Your task to perform on an android device: toggle show notifications on the lock screen Image 0: 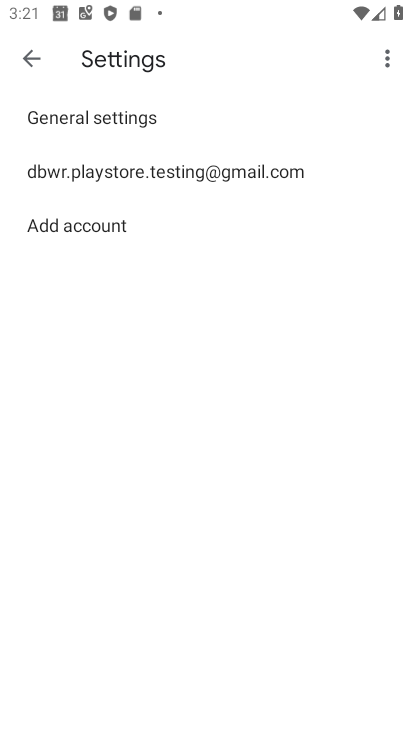
Step 0: press home button
Your task to perform on an android device: toggle show notifications on the lock screen Image 1: 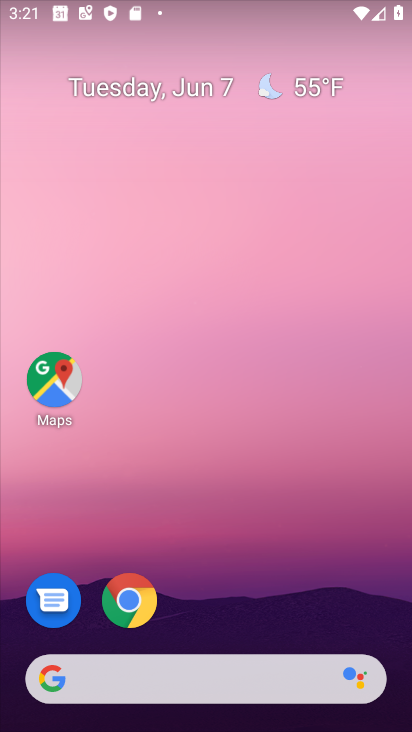
Step 1: drag from (212, 593) to (205, 2)
Your task to perform on an android device: toggle show notifications on the lock screen Image 2: 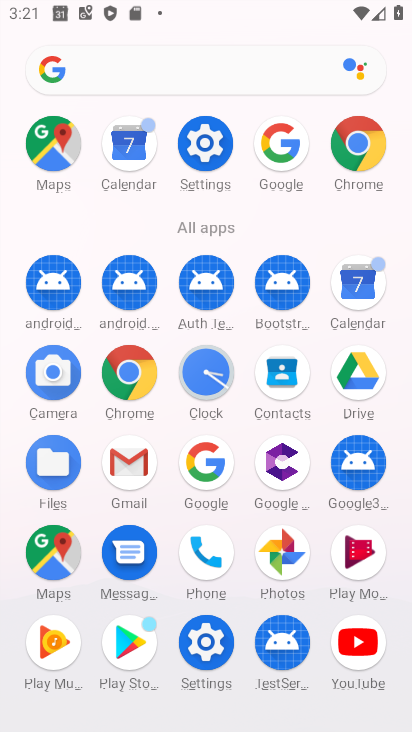
Step 2: click (204, 145)
Your task to perform on an android device: toggle show notifications on the lock screen Image 3: 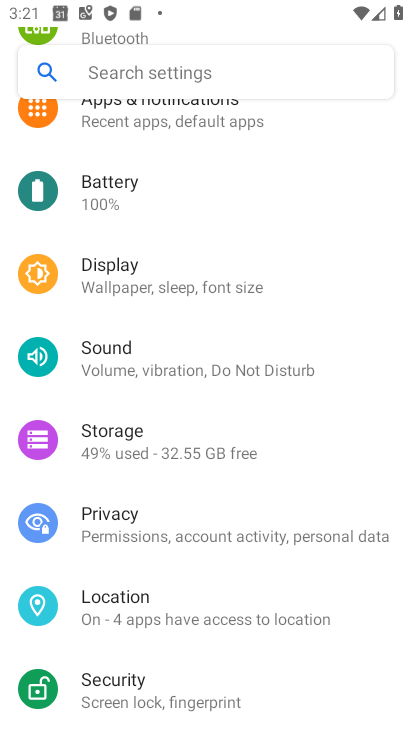
Step 3: click (162, 131)
Your task to perform on an android device: toggle show notifications on the lock screen Image 4: 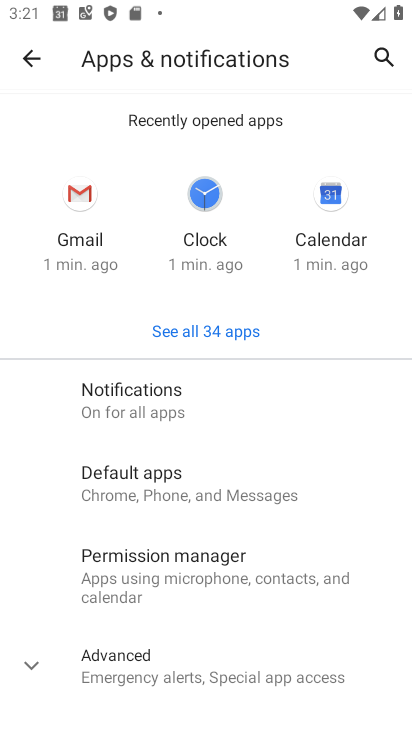
Step 4: click (159, 411)
Your task to perform on an android device: toggle show notifications on the lock screen Image 5: 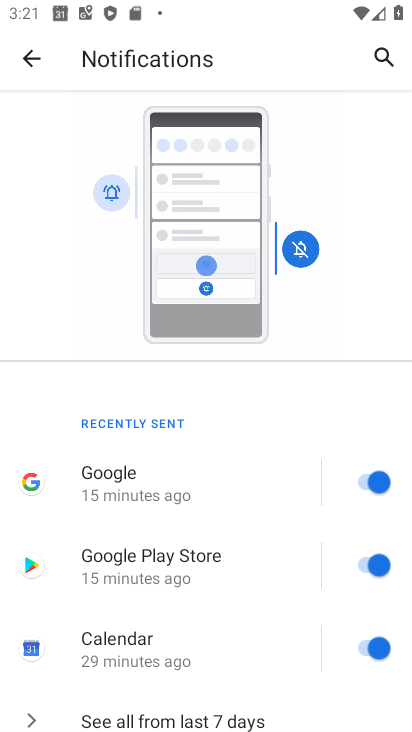
Step 5: drag from (198, 644) to (219, 343)
Your task to perform on an android device: toggle show notifications on the lock screen Image 6: 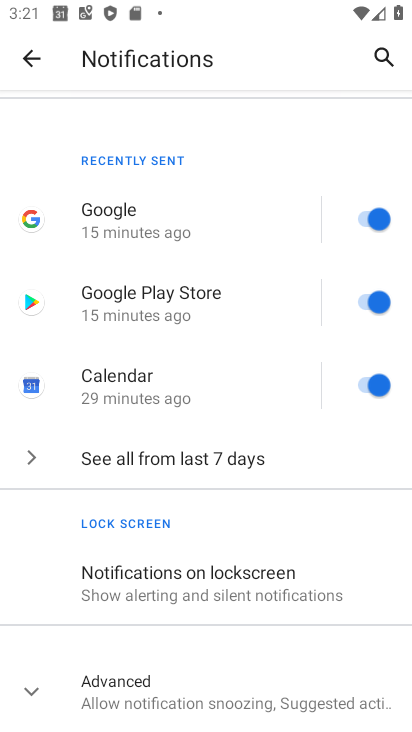
Step 6: click (194, 602)
Your task to perform on an android device: toggle show notifications on the lock screen Image 7: 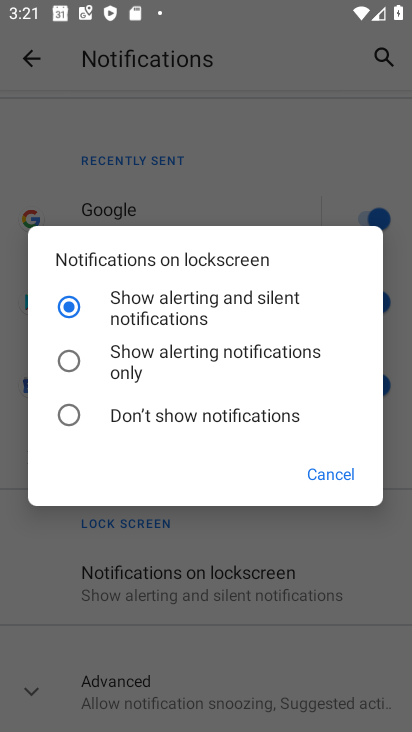
Step 7: click (73, 425)
Your task to perform on an android device: toggle show notifications on the lock screen Image 8: 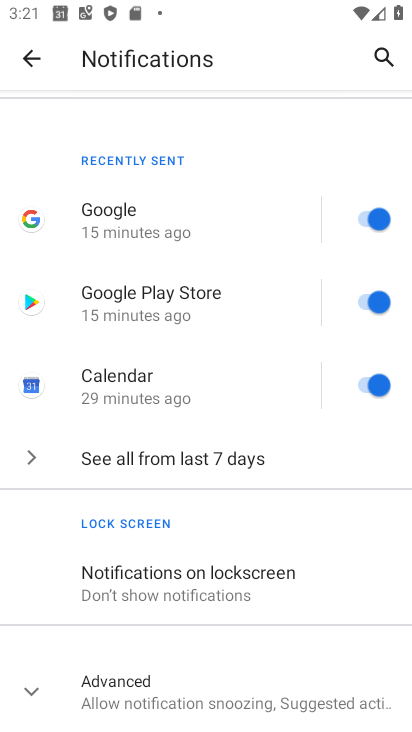
Step 8: task complete